Your task to perform on an android device: Show me popular games on the Play Store Image 0: 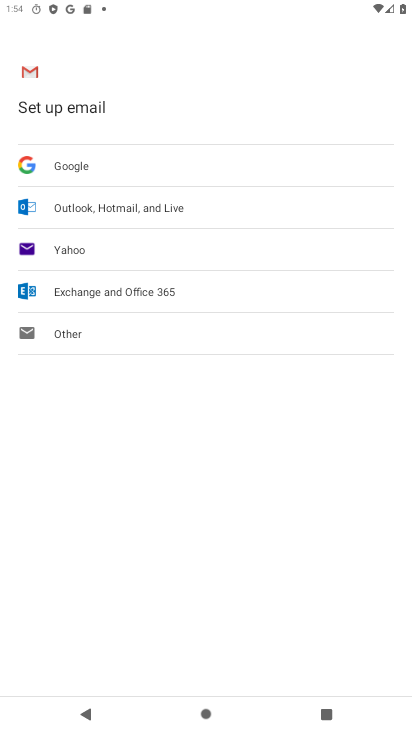
Step 0: press home button
Your task to perform on an android device: Show me popular games on the Play Store Image 1: 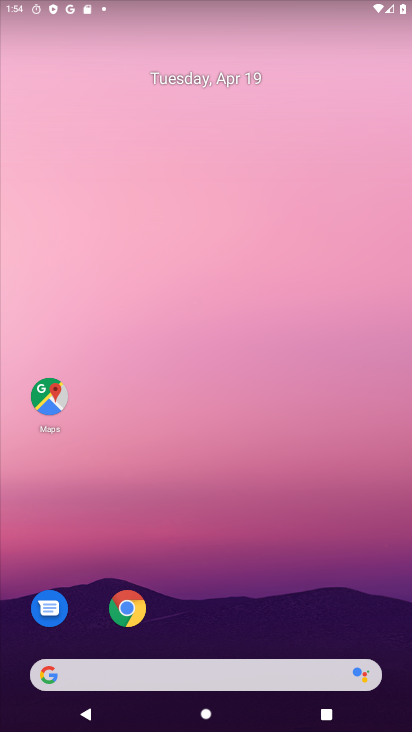
Step 1: drag from (264, 370) to (246, 1)
Your task to perform on an android device: Show me popular games on the Play Store Image 2: 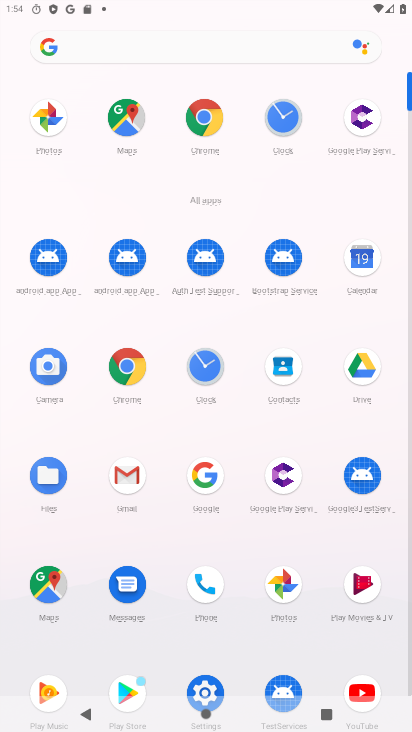
Step 2: click (134, 683)
Your task to perform on an android device: Show me popular games on the Play Store Image 3: 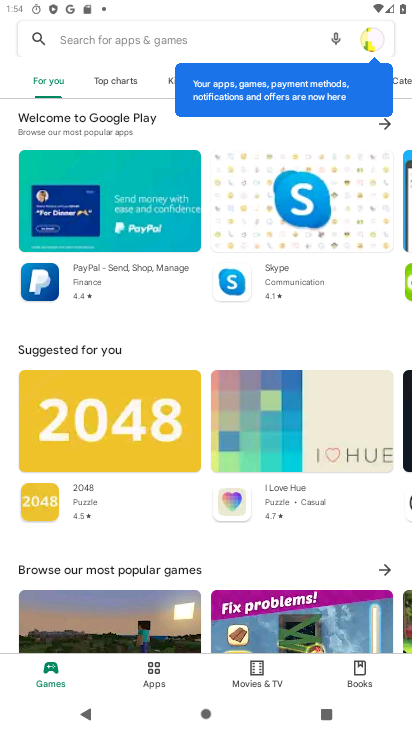
Step 3: click (196, 35)
Your task to perform on an android device: Show me popular games on the Play Store Image 4: 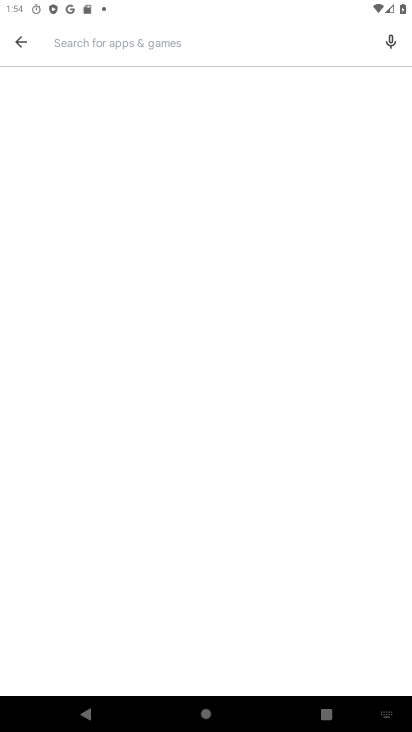
Step 4: click (196, 35)
Your task to perform on an android device: Show me popular games on the Play Store Image 5: 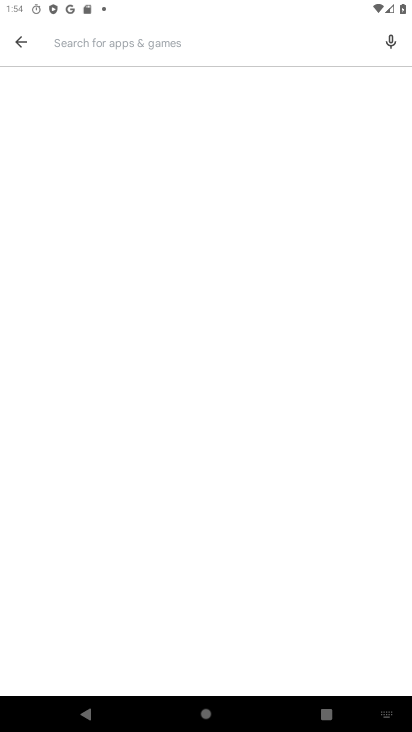
Step 5: type "popular games"
Your task to perform on an android device: Show me popular games on the Play Store Image 6: 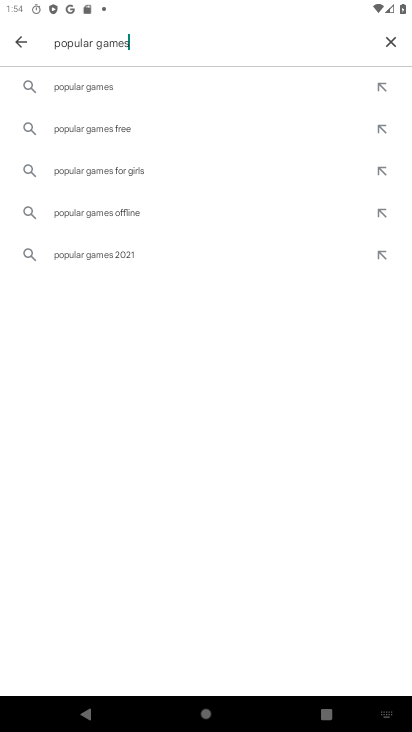
Step 6: click (94, 94)
Your task to perform on an android device: Show me popular games on the Play Store Image 7: 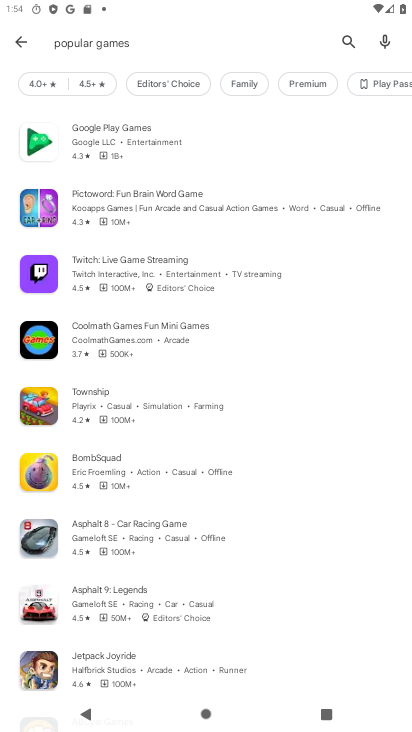
Step 7: task complete